Your task to perform on an android device: toggle wifi Image 0: 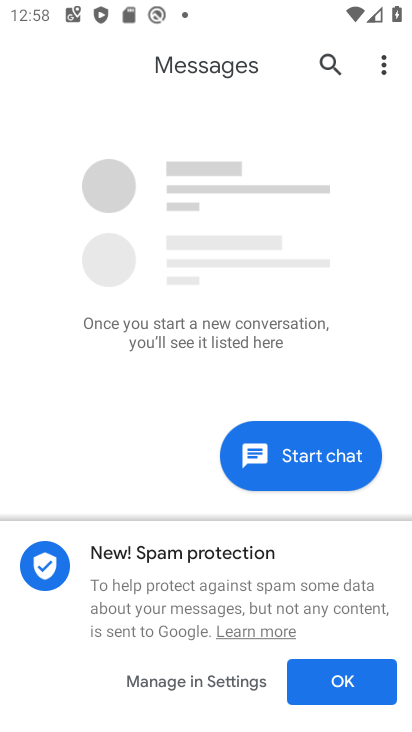
Step 0: press home button
Your task to perform on an android device: toggle wifi Image 1: 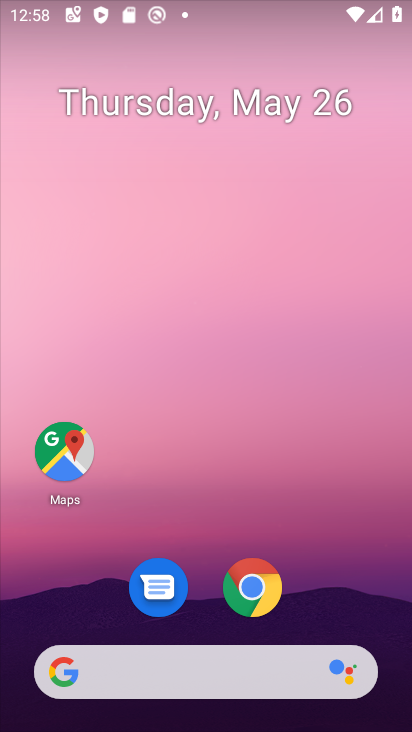
Step 1: drag from (386, 603) to (386, 172)
Your task to perform on an android device: toggle wifi Image 2: 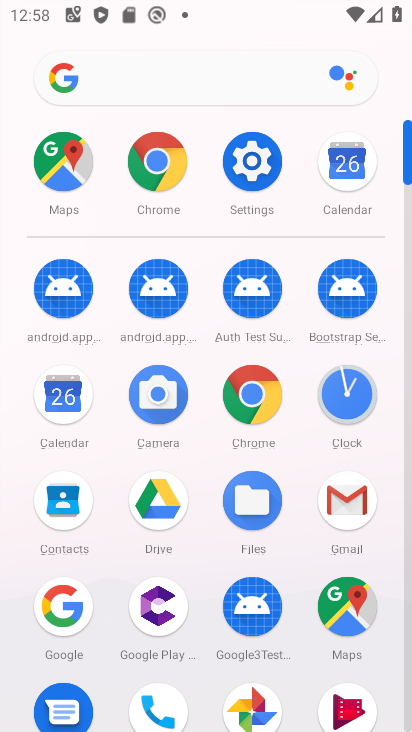
Step 2: click (262, 167)
Your task to perform on an android device: toggle wifi Image 3: 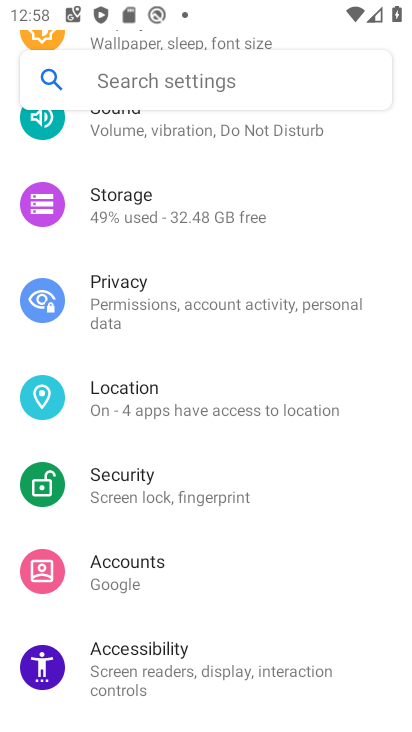
Step 3: drag from (370, 499) to (358, 398)
Your task to perform on an android device: toggle wifi Image 4: 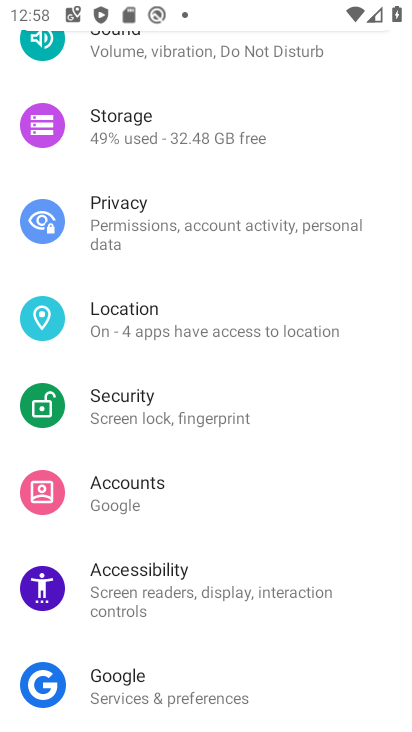
Step 4: drag from (350, 535) to (343, 430)
Your task to perform on an android device: toggle wifi Image 5: 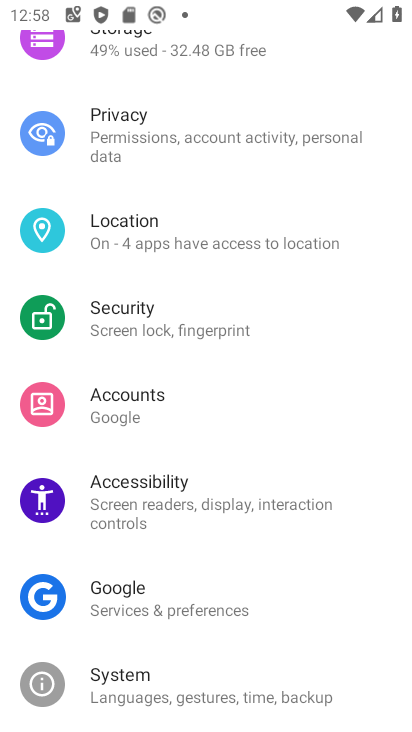
Step 5: drag from (347, 538) to (340, 442)
Your task to perform on an android device: toggle wifi Image 6: 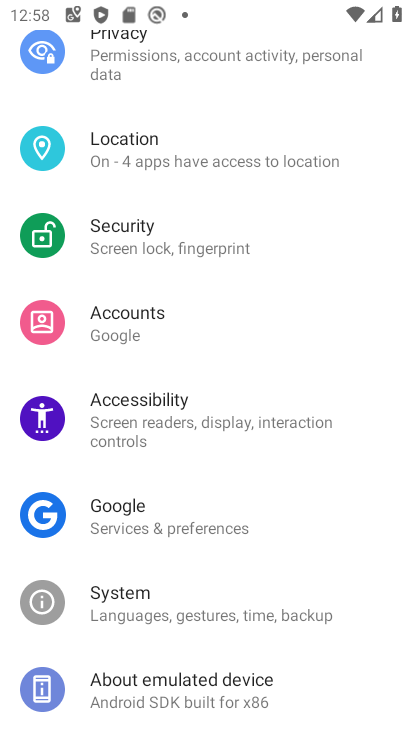
Step 6: drag from (339, 516) to (334, 406)
Your task to perform on an android device: toggle wifi Image 7: 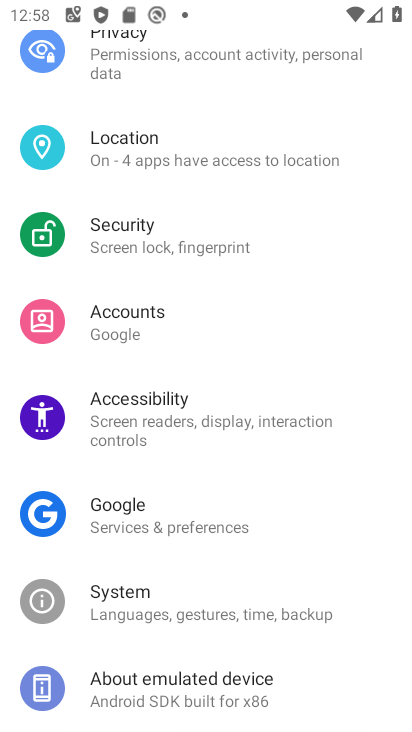
Step 7: drag from (343, 317) to (338, 424)
Your task to perform on an android device: toggle wifi Image 8: 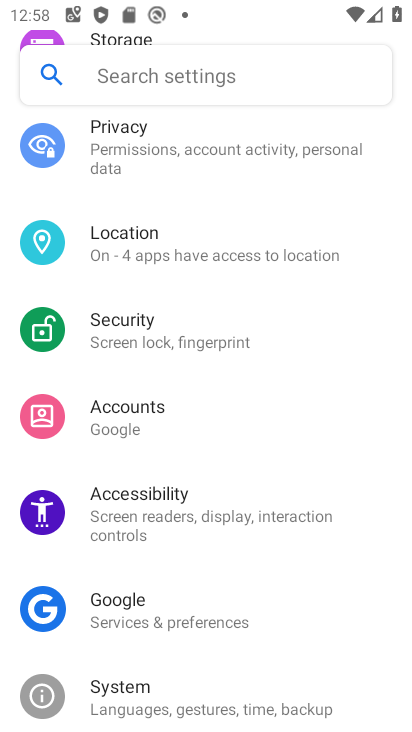
Step 8: drag from (337, 310) to (329, 428)
Your task to perform on an android device: toggle wifi Image 9: 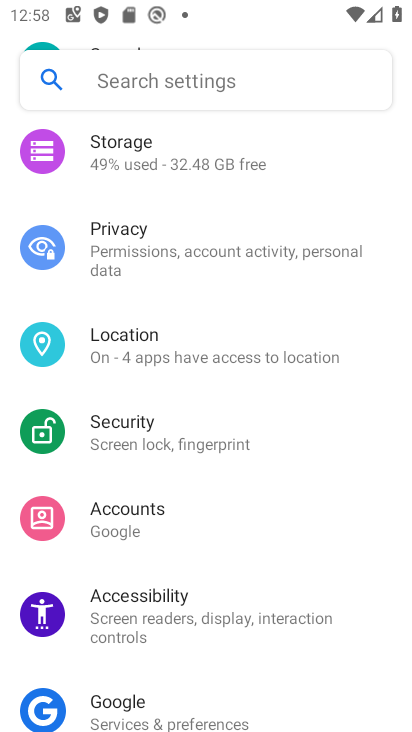
Step 9: drag from (327, 311) to (340, 431)
Your task to perform on an android device: toggle wifi Image 10: 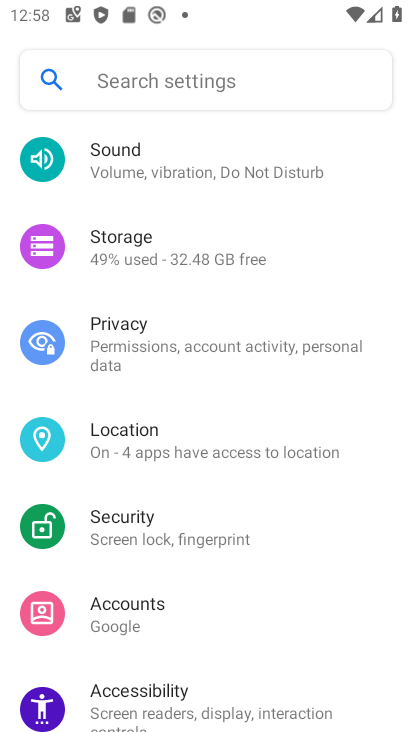
Step 10: drag from (341, 262) to (340, 375)
Your task to perform on an android device: toggle wifi Image 11: 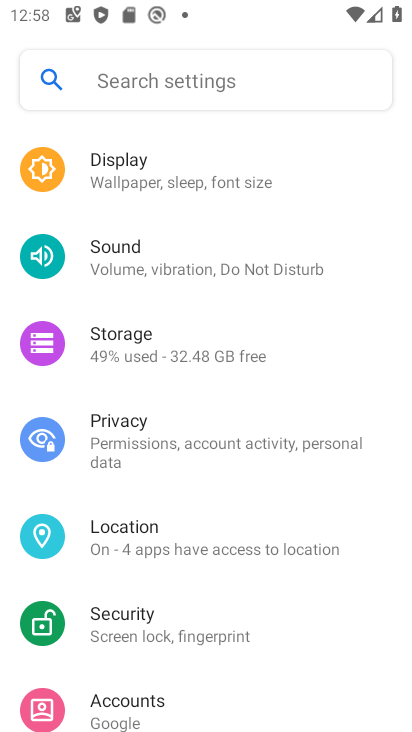
Step 11: drag from (336, 222) to (342, 331)
Your task to perform on an android device: toggle wifi Image 12: 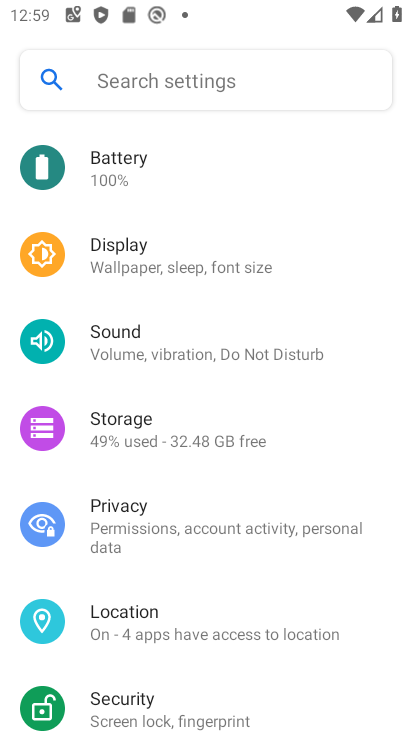
Step 12: drag from (336, 187) to (336, 274)
Your task to perform on an android device: toggle wifi Image 13: 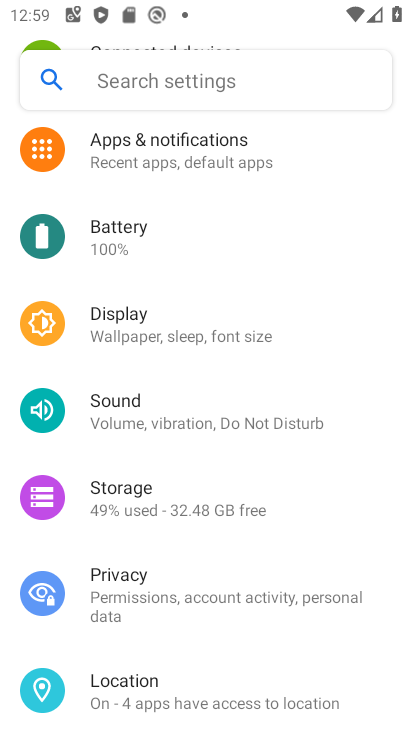
Step 13: drag from (338, 179) to (338, 251)
Your task to perform on an android device: toggle wifi Image 14: 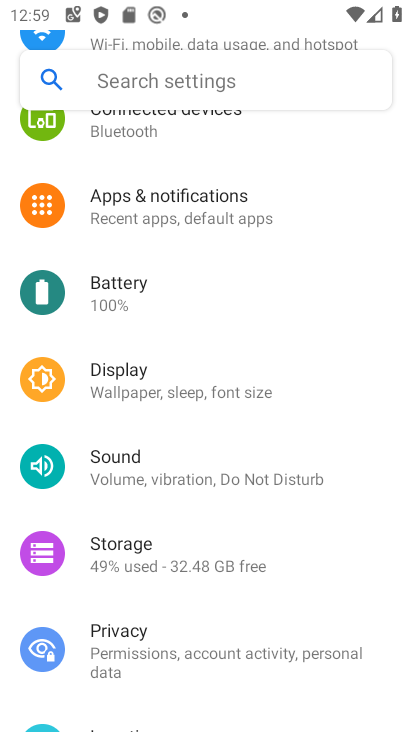
Step 14: drag from (338, 189) to (335, 275)
Your task to perform on an android device: toggle wifi Image 15: 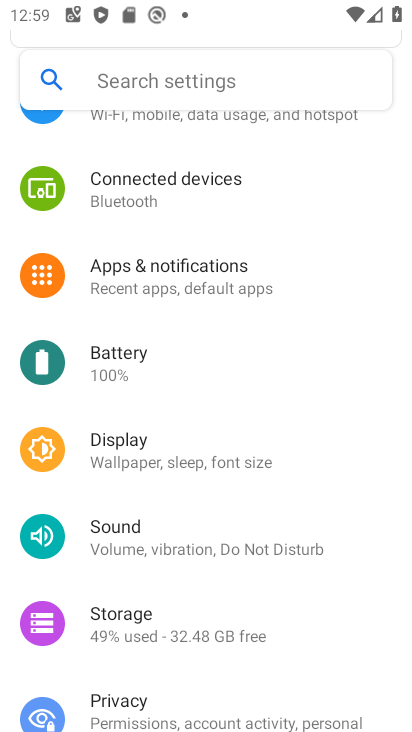
Step 15: drag from (317, 175) to (316, 265)
Your task to perform on an android device: toggle wifi Image 16: 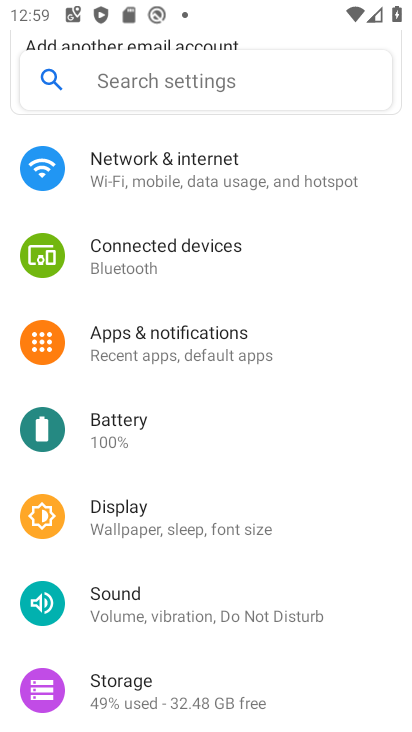
Step 16: click (283, 186)
Your task to perform on an android device: toggle wifi Image 17: 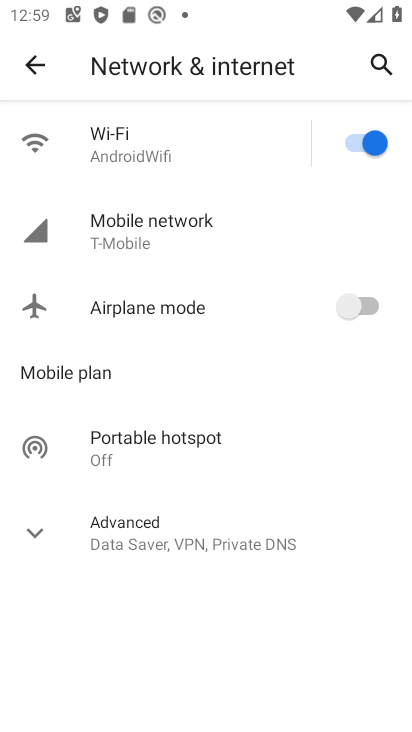
Step 17: click (371, 141)
Your task to perform on an android device: toggle wifi Image 18: 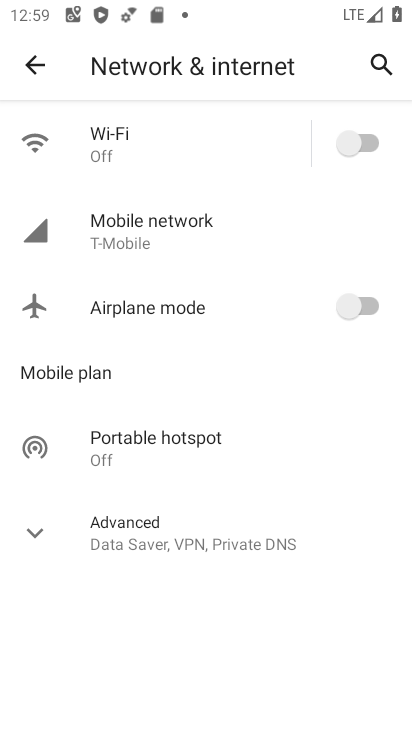
Step 18: task complete